Your task to perform on an android device: change the clock style Image 0: 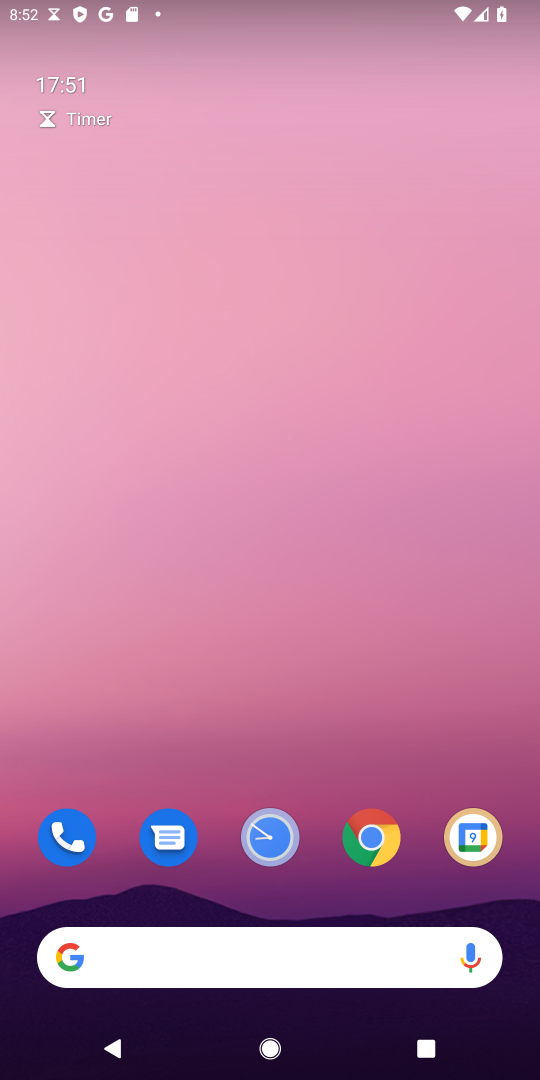
Step 0: drag from (307, 895) to (309, 140)
Your task to perform on an android device: change the clock style Image 1: 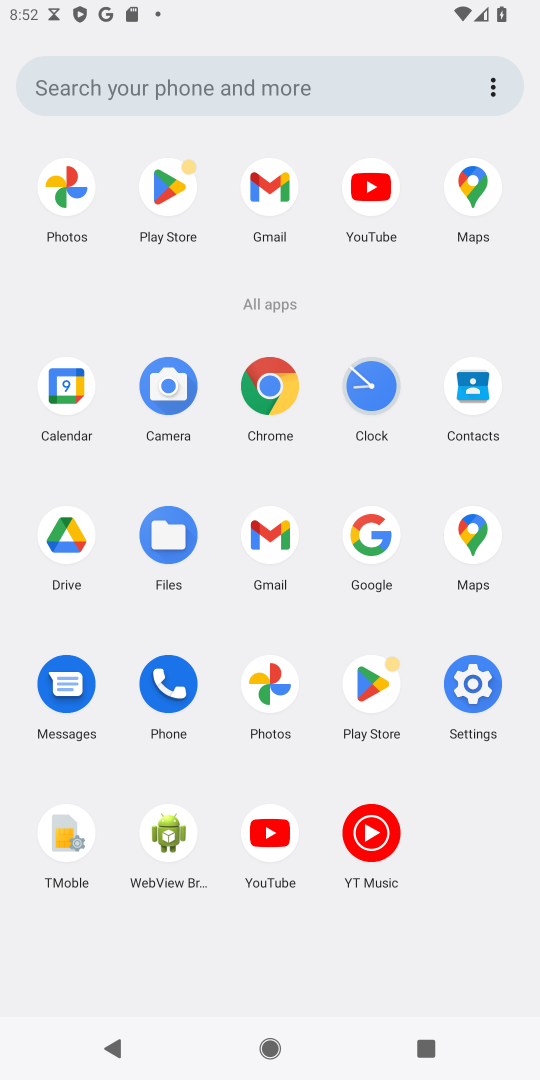
Step 1: click (370, 388)
Your task to perform on an android device: change the clock style Image 2: 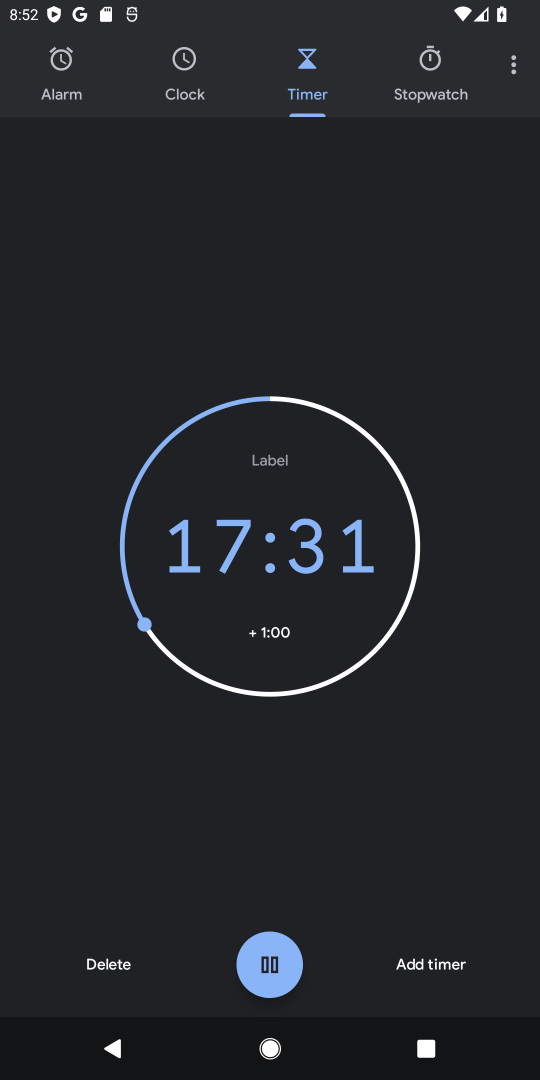
Step 2: click (519, 69)
Your task to perform on an android device: change the clock style Image 3: 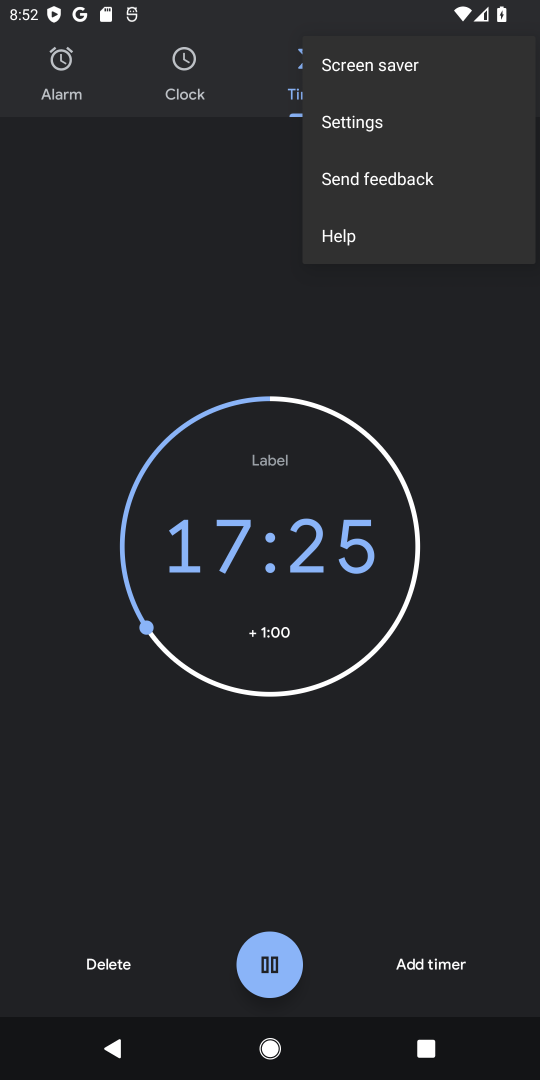
Step 3: click (362, 116)
Your task to perform on an android device: change the clock style Image 4: 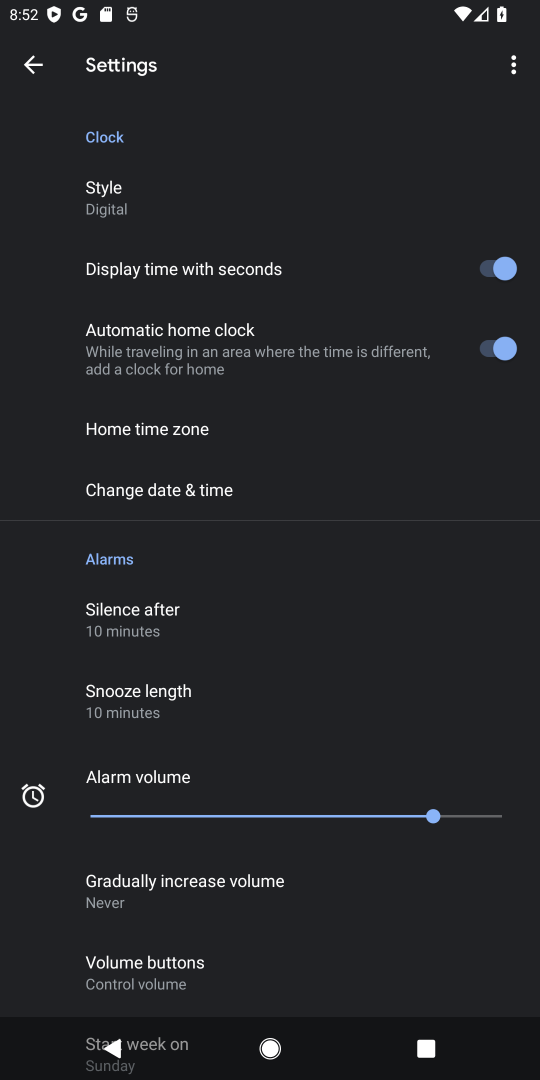
Step 4: click (108, 193)
Your task to perform on an android device: change the clock style Image 5: 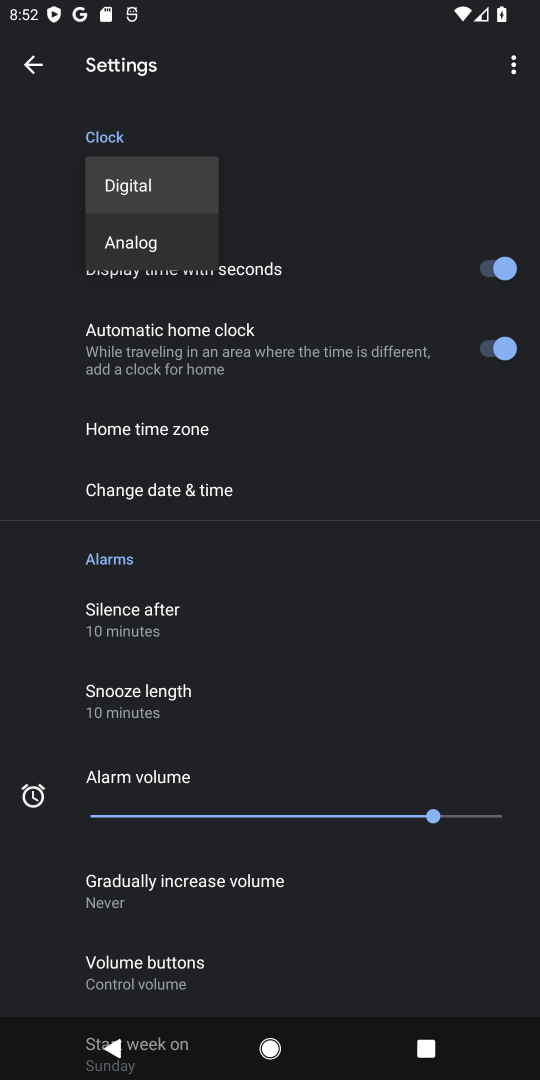
Step 5: click (129, 240)
Your task to perform on an android device: change the clock style Image 6: 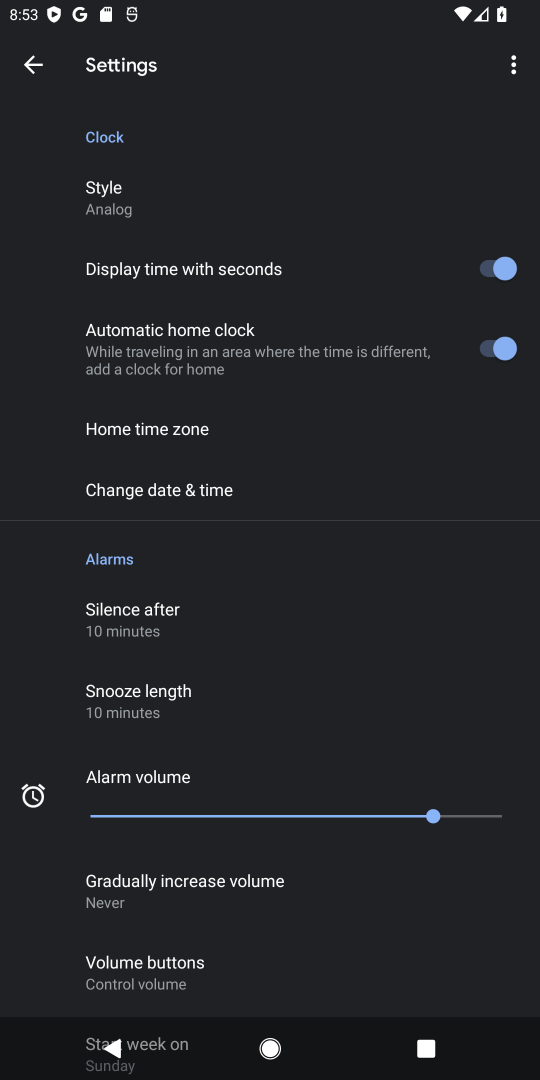
Step 6: task complete